Your task to perform on an android device: What's the weather today? Image 0: 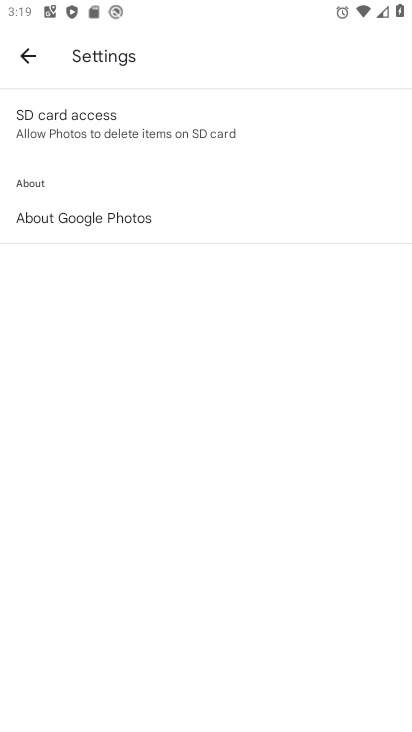
Step 0: press home button
Your task to perform on an android device: What's the weather today? Image 1: 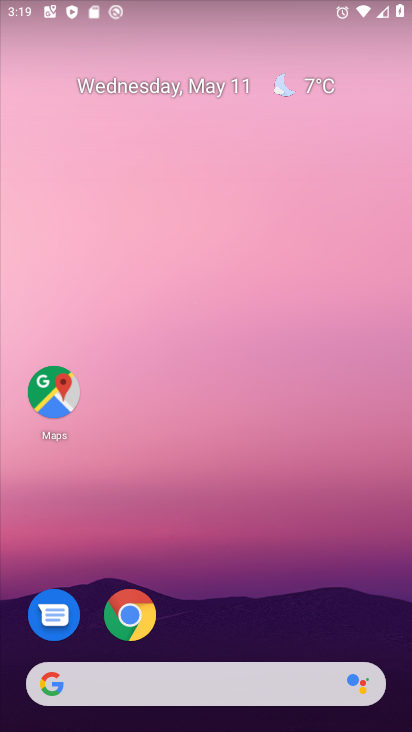
Step 1: click (306, 87)
Your task to perform on an android device: What's the weather today? Image 2: 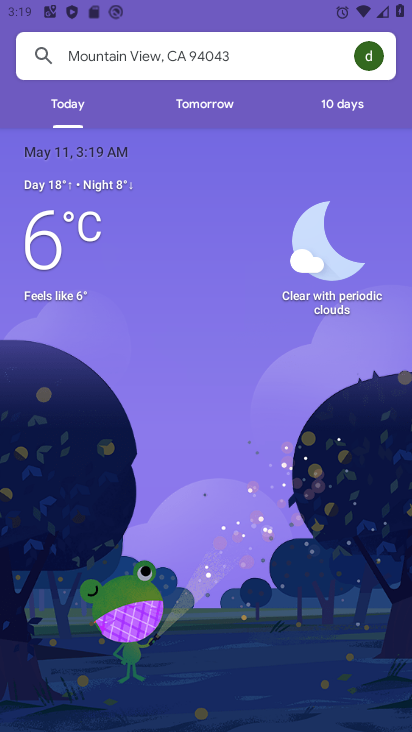
Step 2: task complete